Your task to perform on an android device: Open Google Image 0: 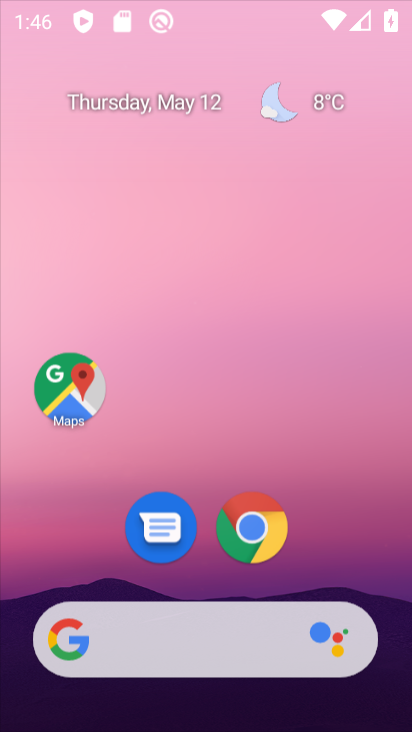
Step 0: press home button
Your task to perform on an android device: Open Google Image 1: 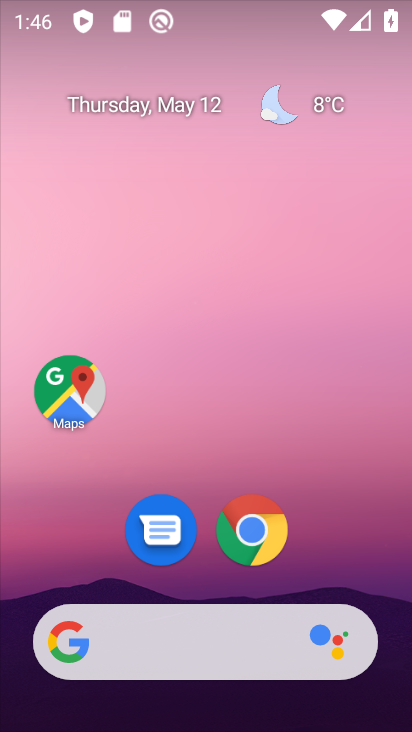
Step 1: click (82, 635)
Your task to perform on an android device: Open Google Image 2: 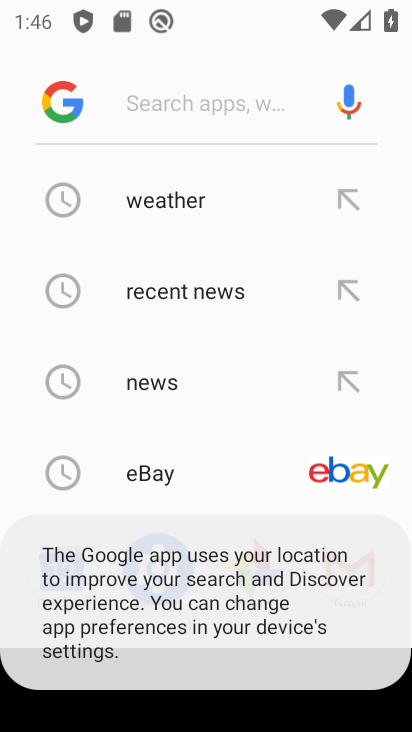
Step 2: click (53, 97)
Your task to perform on an android device: Open Google Image 3: 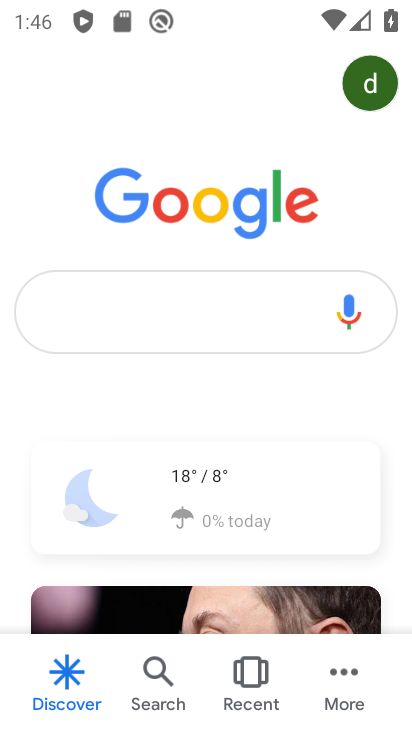
Step 3: task complete